Your task to perform on an android device: toggle sleep mode Image 0: 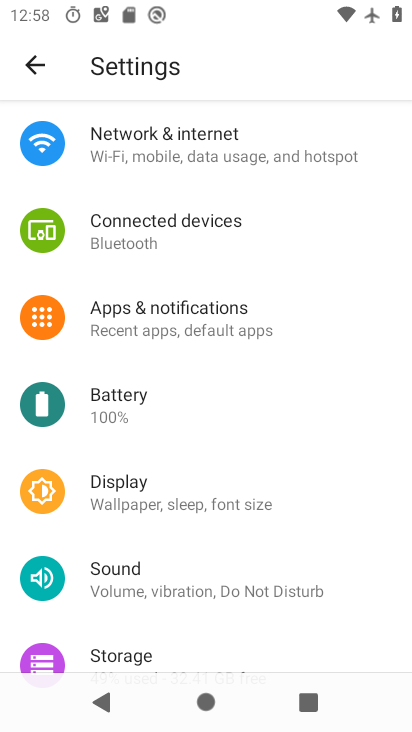
Step 0: click (116, 496)
Your task to perform on an android device: toggle sleep mode Image 1: 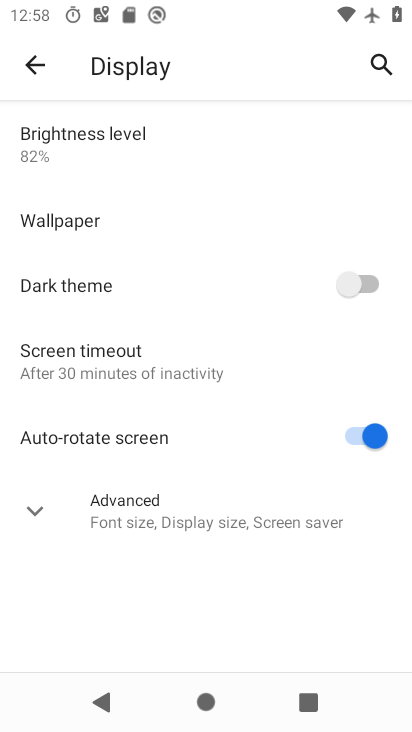
Step 1: click (23, 517)
Your task to perform on an android device: toggle sleep mode Image 2: 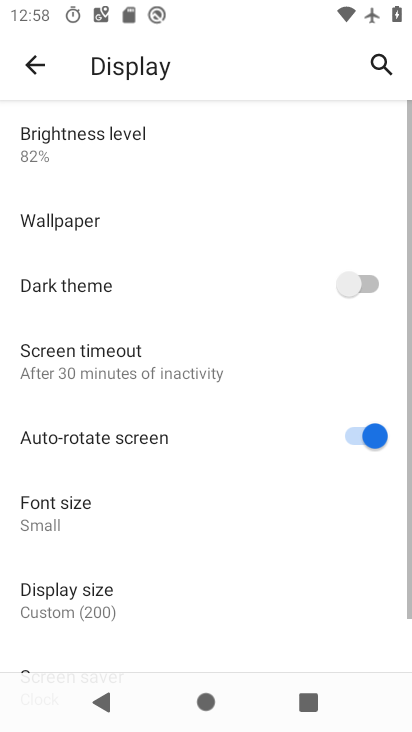
Step 2: task complete